Your task to perform on an android device: Go to Google Image 0: 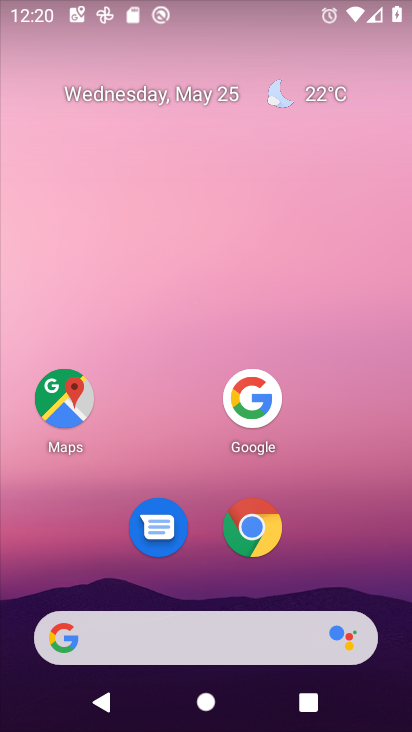
Step 0: press home button
Your task to perform on an android device: Go to Google Image 1: 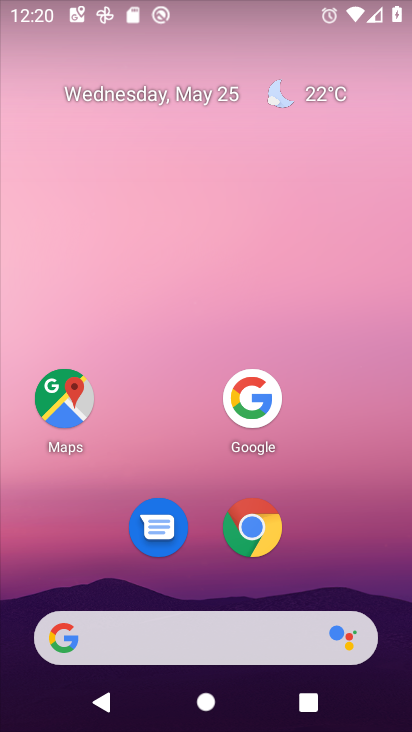
Step 1: click (260, 399)
Your task to perform on an android device: Go to Google Image 2: 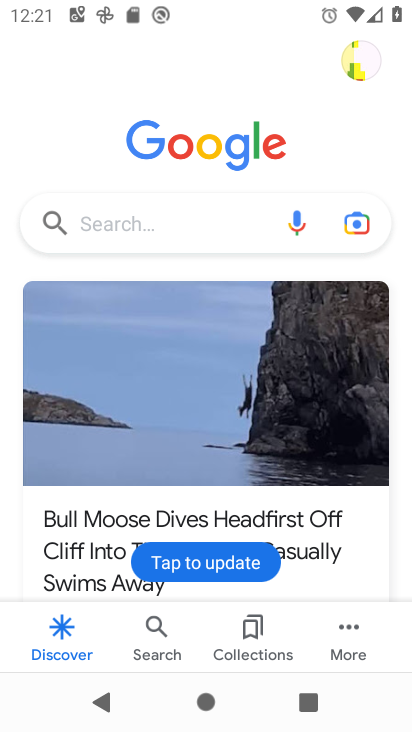
Step 2: task complete